Your task to perform on an android device: turn on improve location accuracy Image 0: 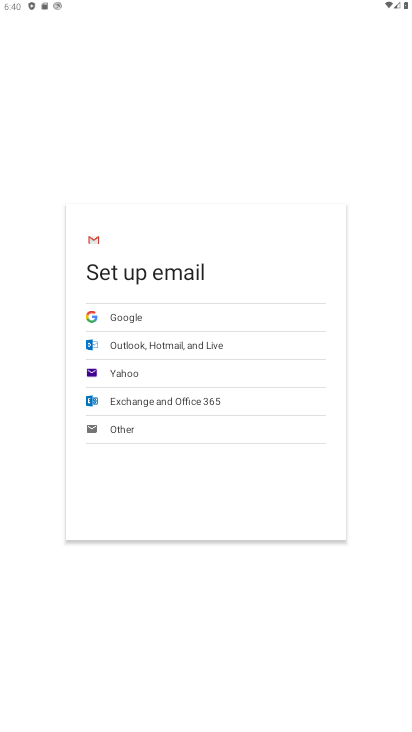
Step 0: press home button
Your task to perform on an android device: turn on improve location accuracy Image 1: 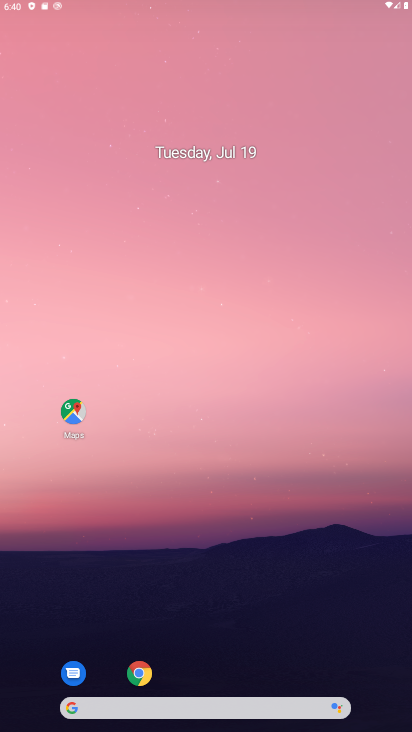
Step 1: drag from (391, 679) to (278, 25)
Your task to perform on an android device: turn on improve location accuracy Image 2: 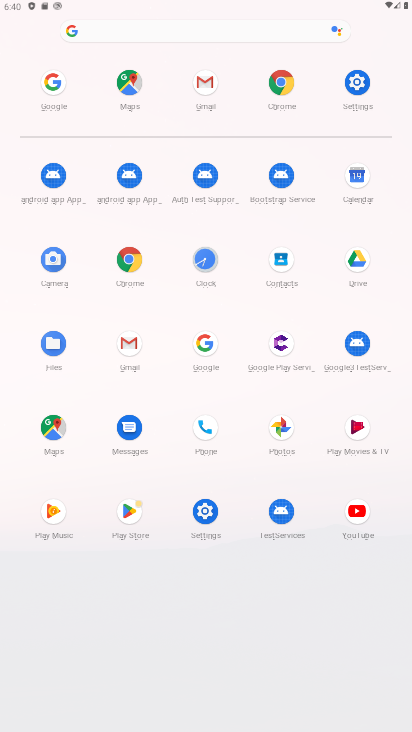
Step 2: click (200, 508)
Your task to perform on an android device: turn on improve location accuracy Image 3: 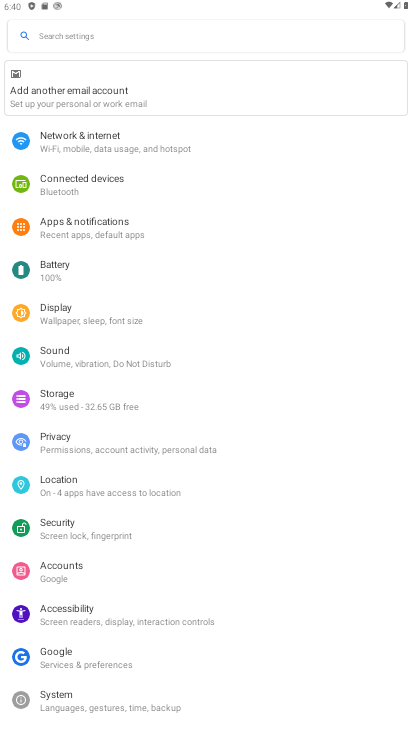
Step 3: click (61, 487)
Your task to perform on an android device: turn on improve location accuracy Image 4: 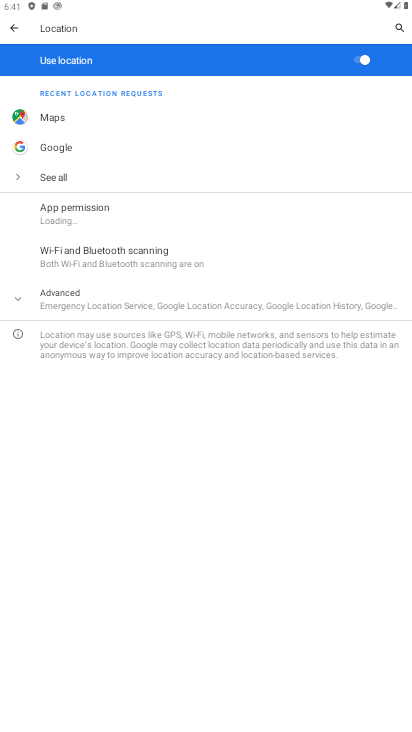
Step 4: click (96, 305)
Your task to perform on an android device: turn on improve location accuracy Image 5: 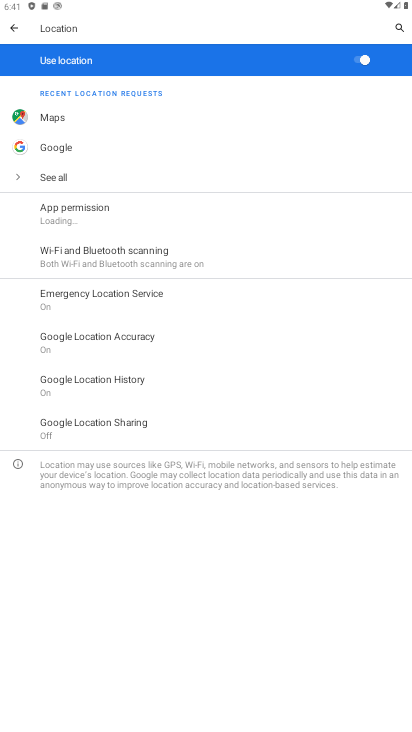
Step 5: click (100, 338)
Your task to perform on an android device: turn on improve location accuracy Image 6: 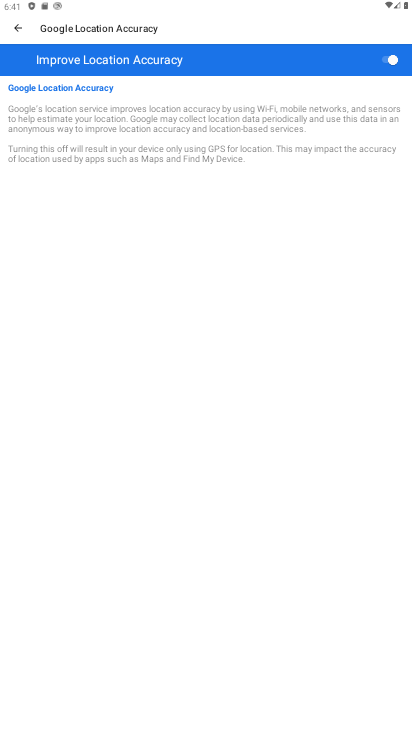
Step 6: task complete